Your task to perform on an android device: empty trash in google photos Image 0: 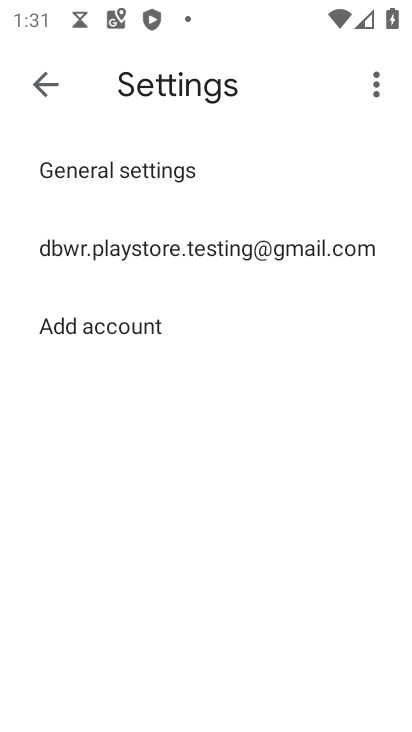
Step 0: press home button
Your task to perform on an android device: empty trash in google photos Image 1: 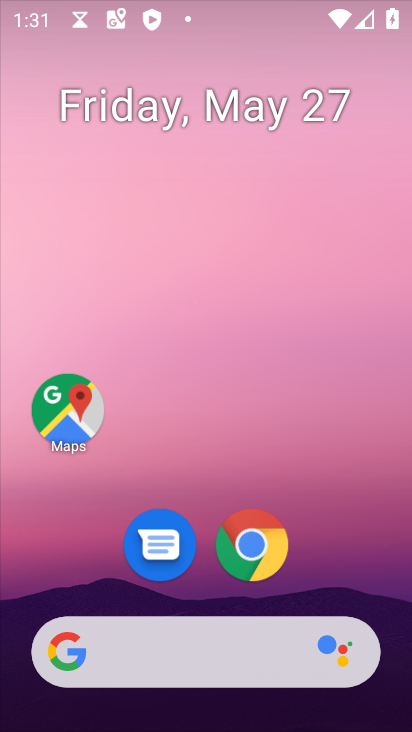
Step 1: drag from (365, 535) to (211, 25)
Your task to perform on an android device: empty trash in google photos Image 2: 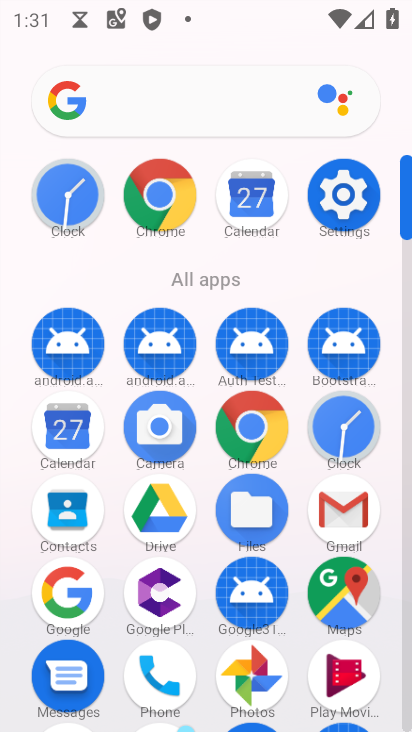
Step 2: click (259, 679)
Your task to perform on an android device: empty trash in google photos Image 3: 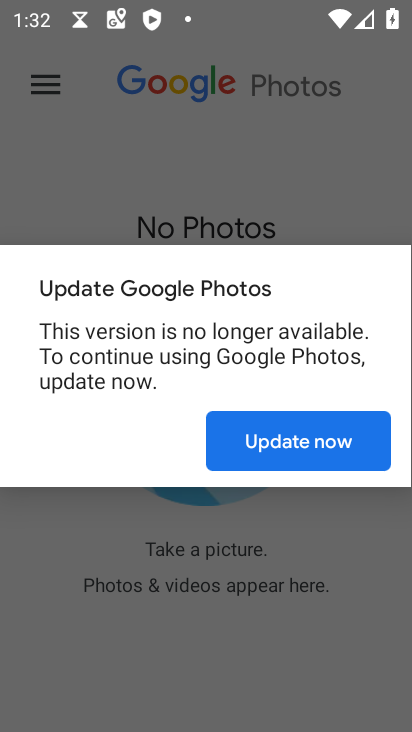
Step 3: click (292, 440)
Your task to perform on an android device: empty trash in google photos Image 4: 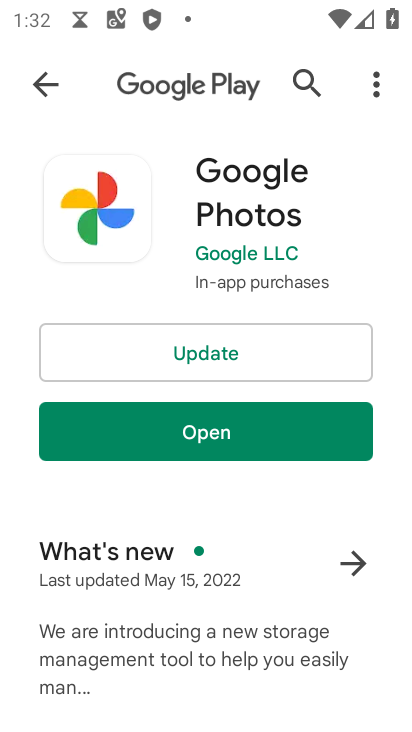
Step 4: click (207, 358)
Your task to perform on an android device: empty trash in google photos Image 5: 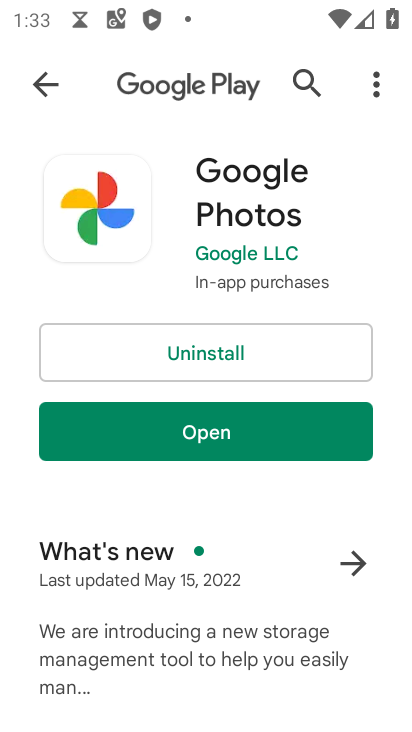
Step 5: click (298, 456)
Your task to perform on an android device: empty trash in google photos Image 6: 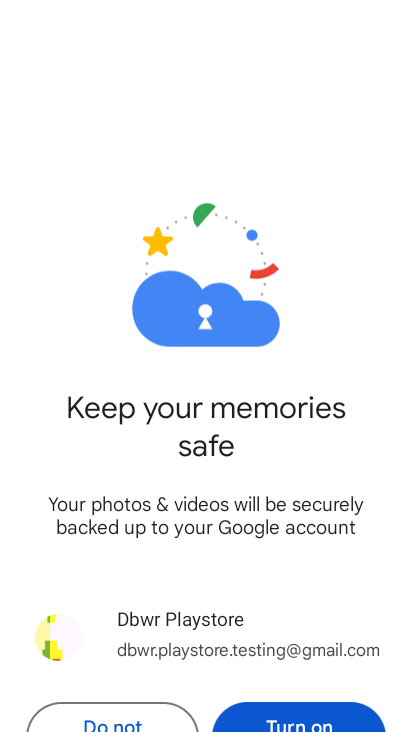
Step 6: drag from (246, 566) to (248, 171)
Your task to perform on an android device: empty trash in google photos Image 7: 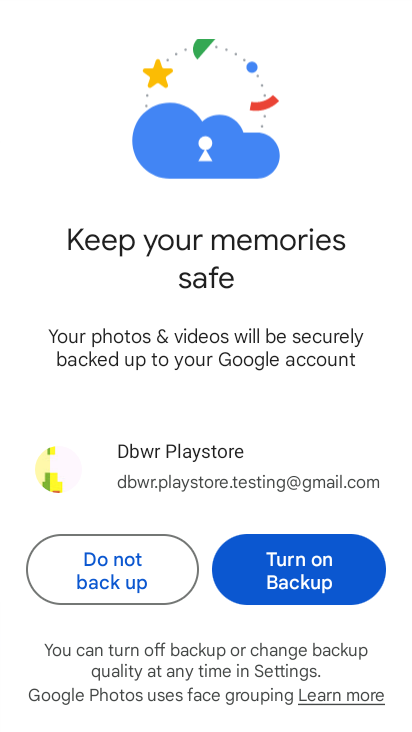
Step 7: click (311, 571)
Your task to perform on an android device: empty trash in google photos Image 8: 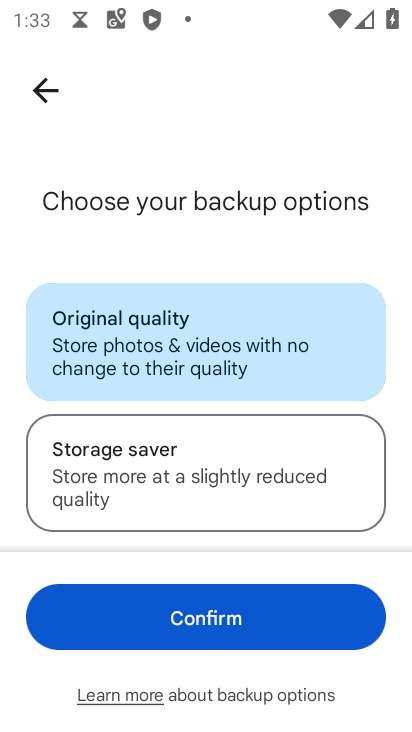
Step 8: click (318, 605)
Your task to perform on an android device: empty trash in google photos Image 9: 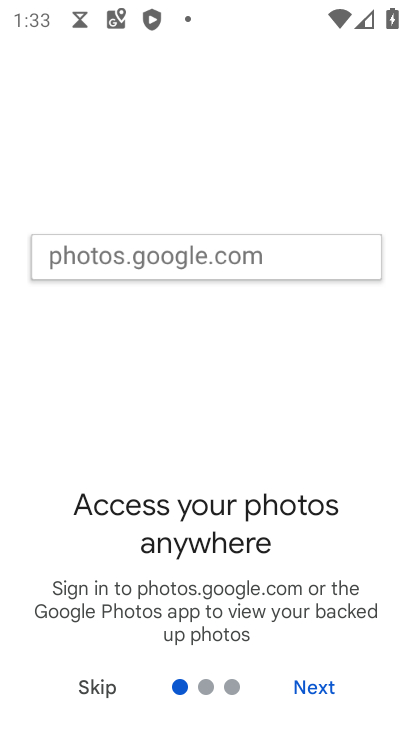
Step 9: click (312, 689)
Your task to perform on an android device: empty trash in google photos Image 10: 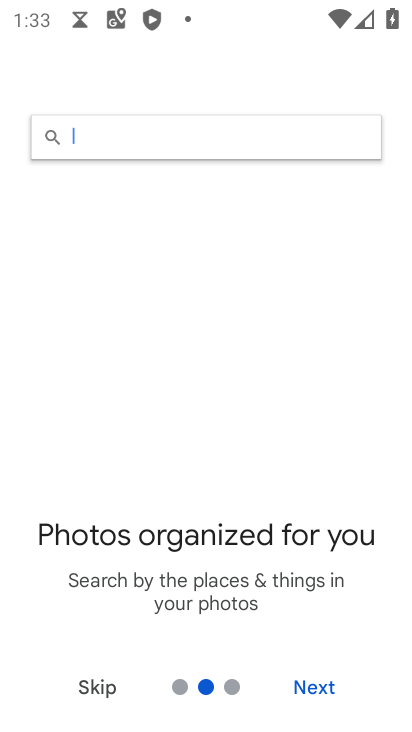
Step 10: click (315, 685)
Your task to perform on an android device: empty trash in google photos Image 11: 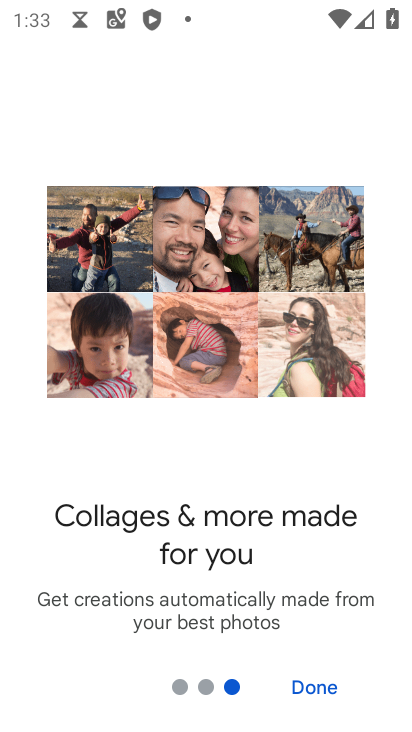
Step 11: click (318, 682)
Your task to perform on an android device: empty trash in google photos Image 12: 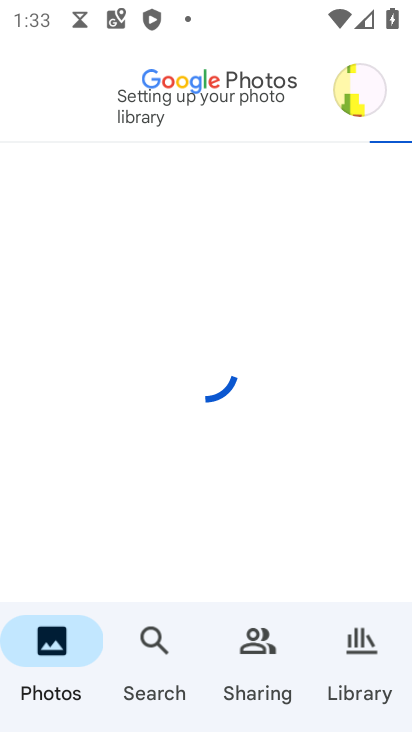
Step 12: click (372, 649)
Your task to perform on an android device: empty trash in google photos Image 13: 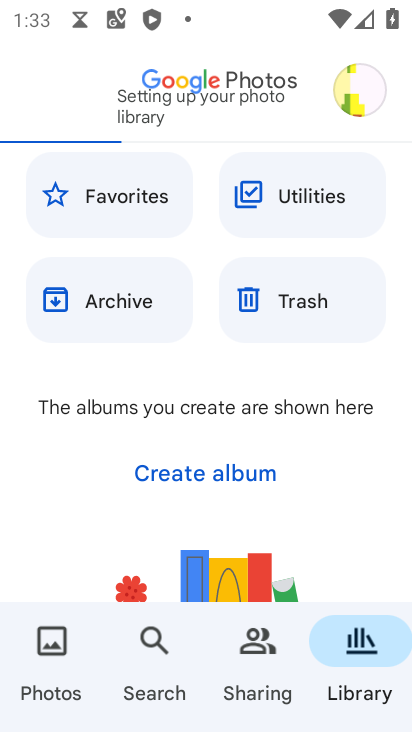
Step 13: click (302, 286)
Your task to perform on an android device: empty trash in google photos Image 14: 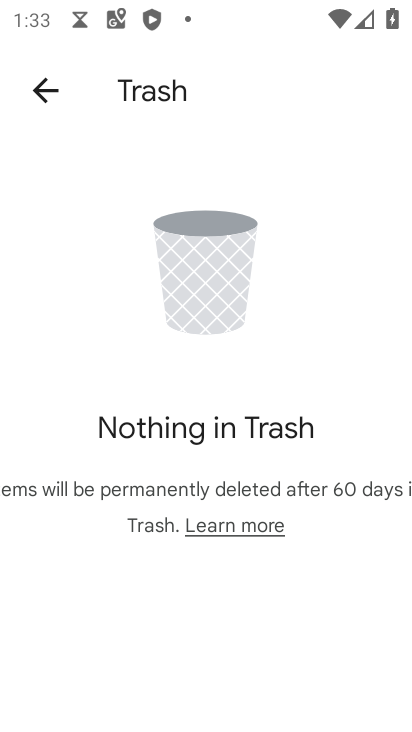
Step 14: task complete